Your task to perform on an android device: allow cookies in the chrome app Image 0: 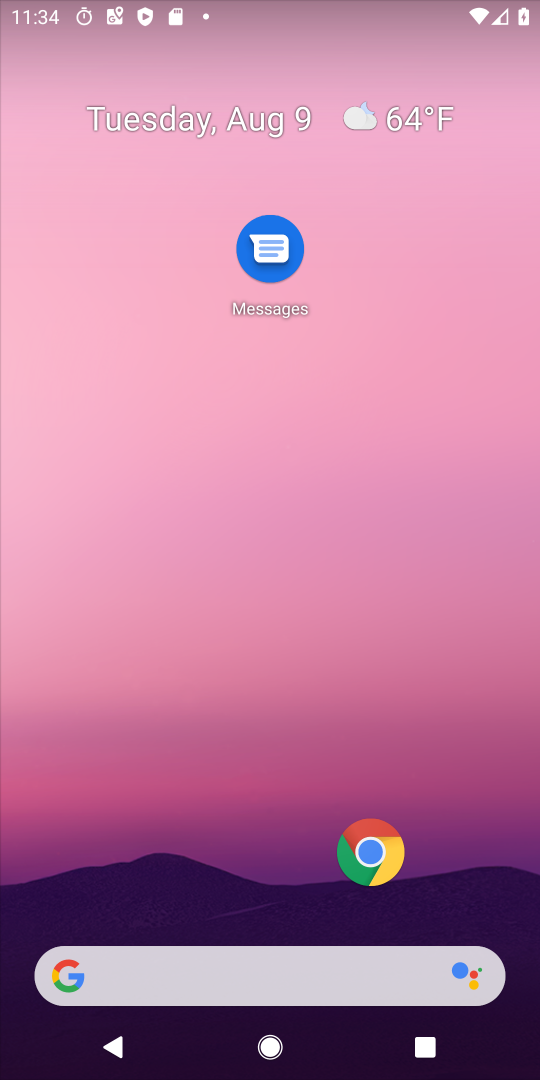
Step 0: click (366, 859)
Your task to perform on an android device: allow cookies in the chrome app Image 1: 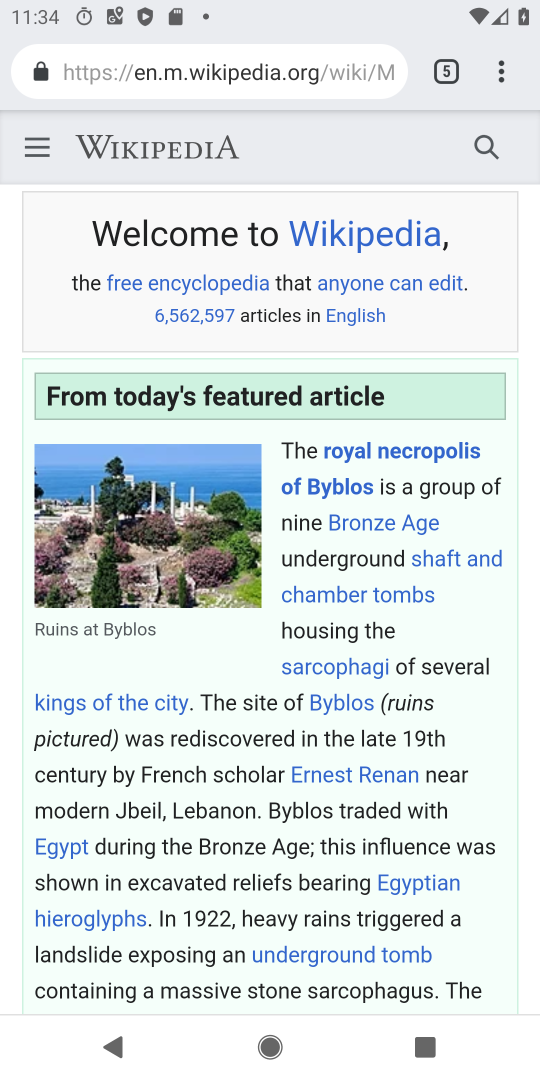
Step 1: click (514, 88)
Your task to perform on an android device: allow cookies in the chrome app Image 2: 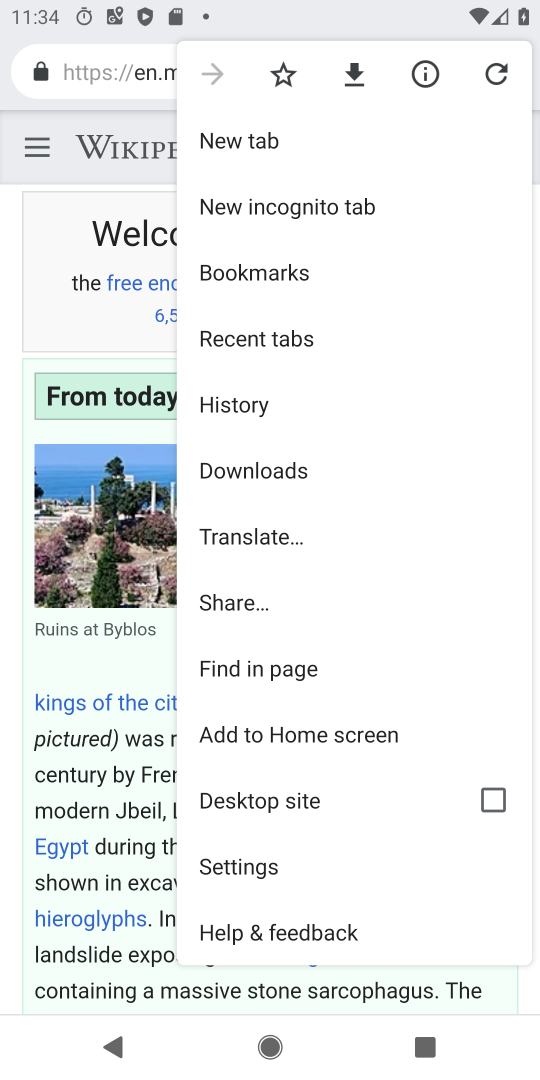
Step 2: click (233, 867)
Your task to perform on an android device: allow cookies in the chrome app Image 3: 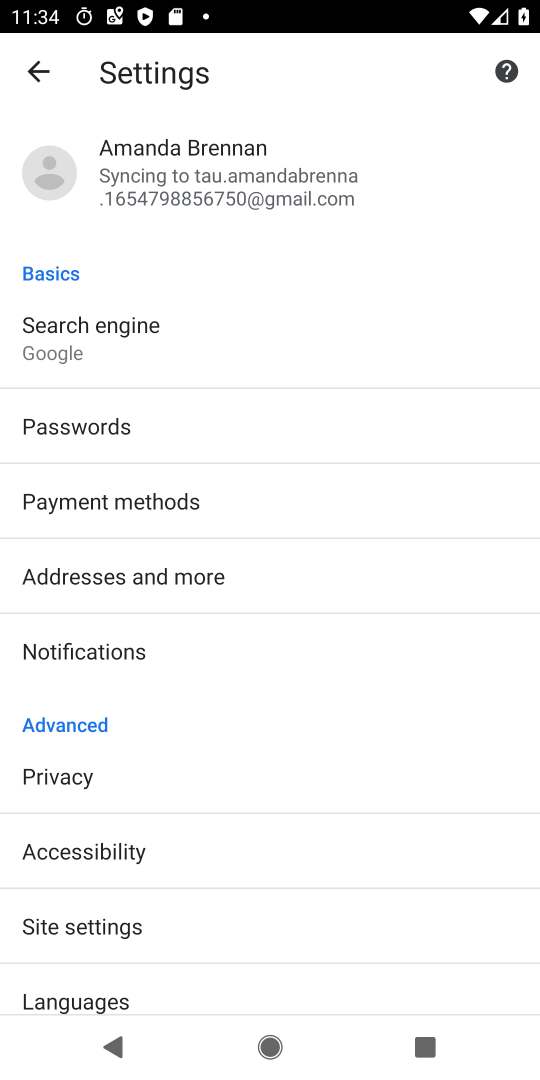
Step 3: click (183, 914)
Your task to perform on an android device: allow cookies in the chrome app Image 4: 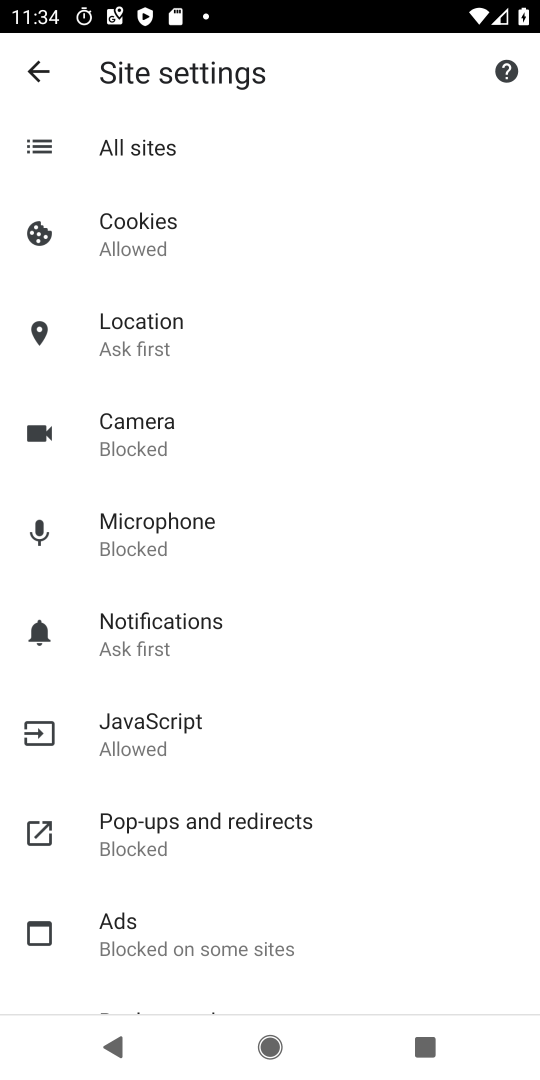
Step 4: task complete